Your task to perform on an android device: Go to Maps Image 0: 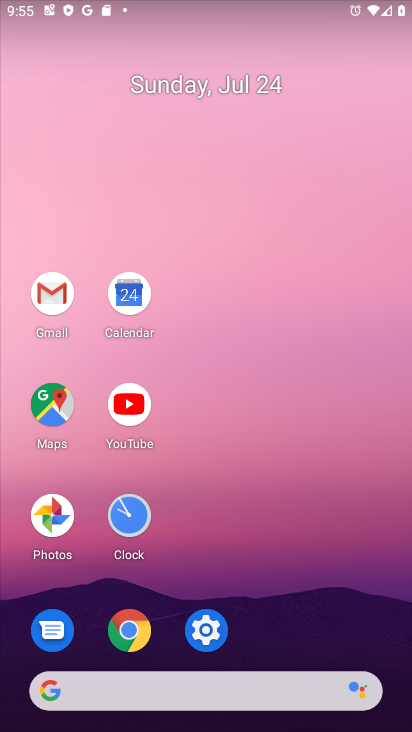
Step 0: click (49, 421)
Your task to perform on an android device: Go to Maps Image 1: 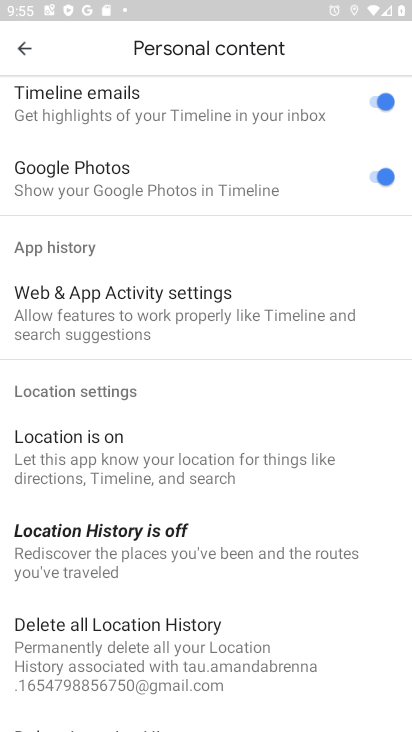
Step 1: click (23, 53)
Your task to perform on an android device: Go to Maps Image 2: 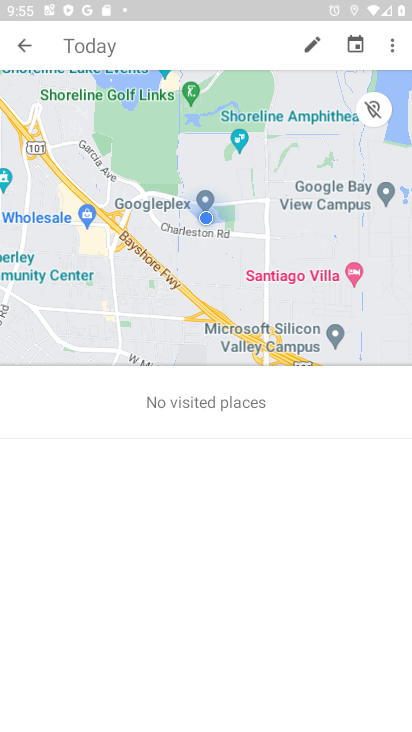
Step 2: click (17, 41)
Your task to perform on an android device: Go to Maps Image 3: 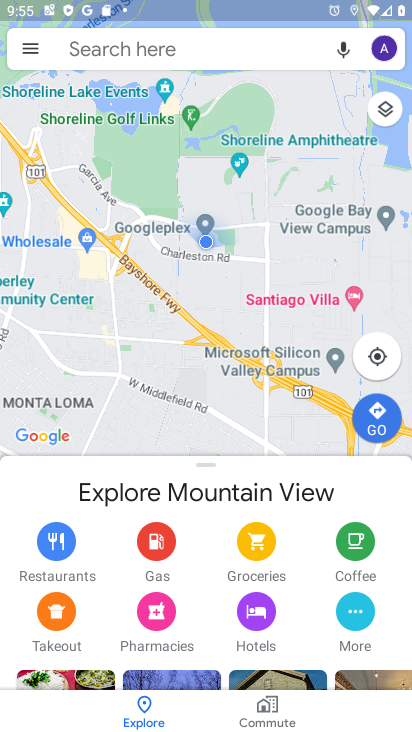
Step 3: task complete